Your task to perform on an android device: Open calendar and show me the first week of next month Image 0: 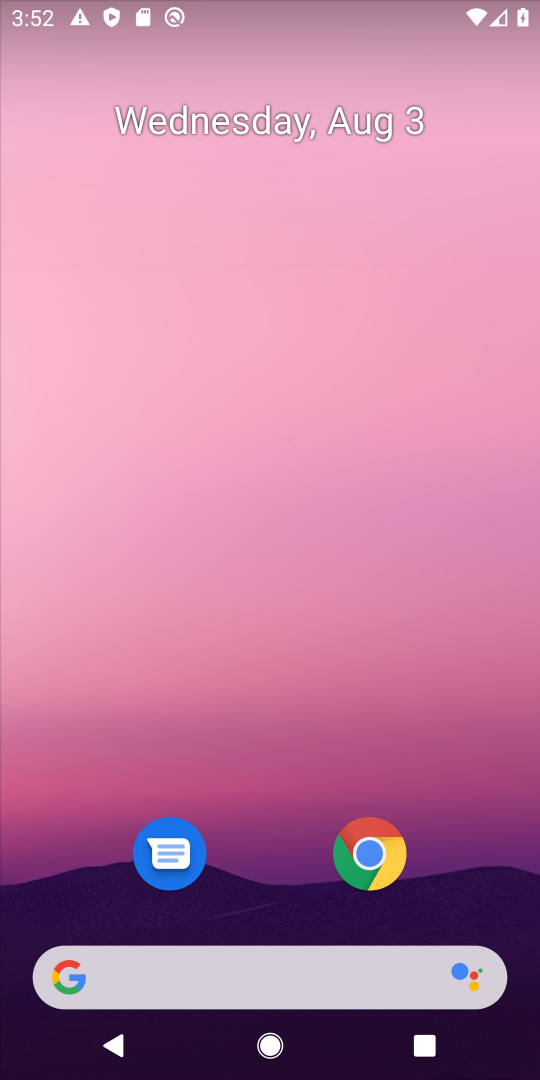
Step 0: press home button
Your task to perform on an android device: Open calendar and show me the first week of next month Image 1: 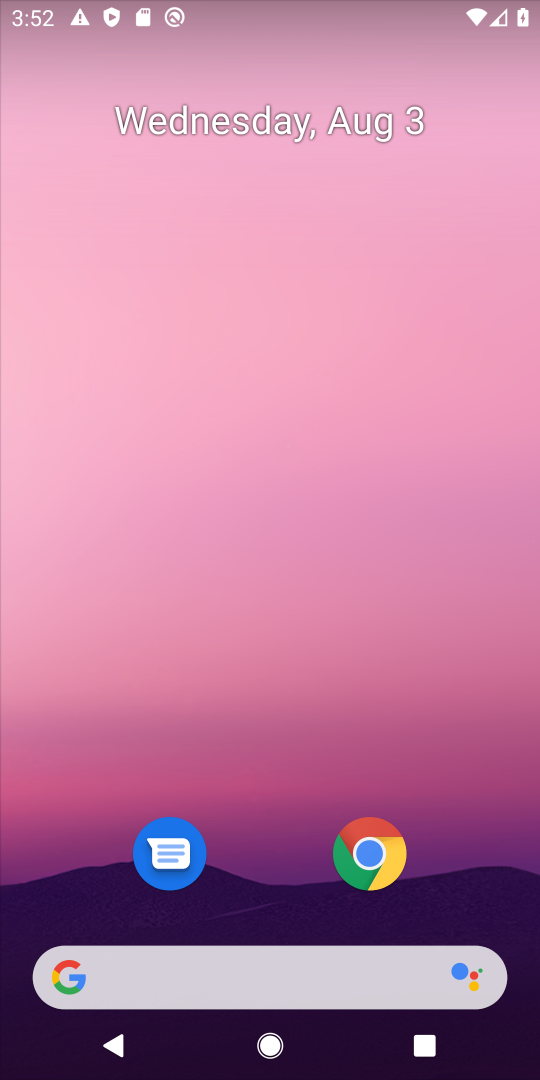
Step 1: drag from (296, 1065) to (259, 221)
Your task to perform on an android device: Open calendar and show me the first week of next month Image 2: 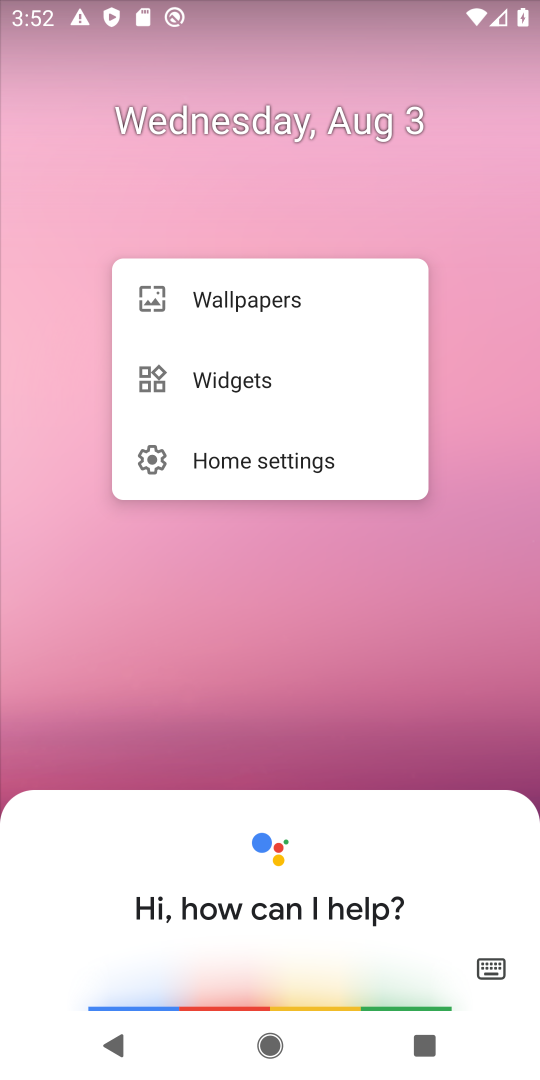
Step 2: click (285, 634)
Your task to perform on an android device: Open calendar and show me the first week of next month Image 3: 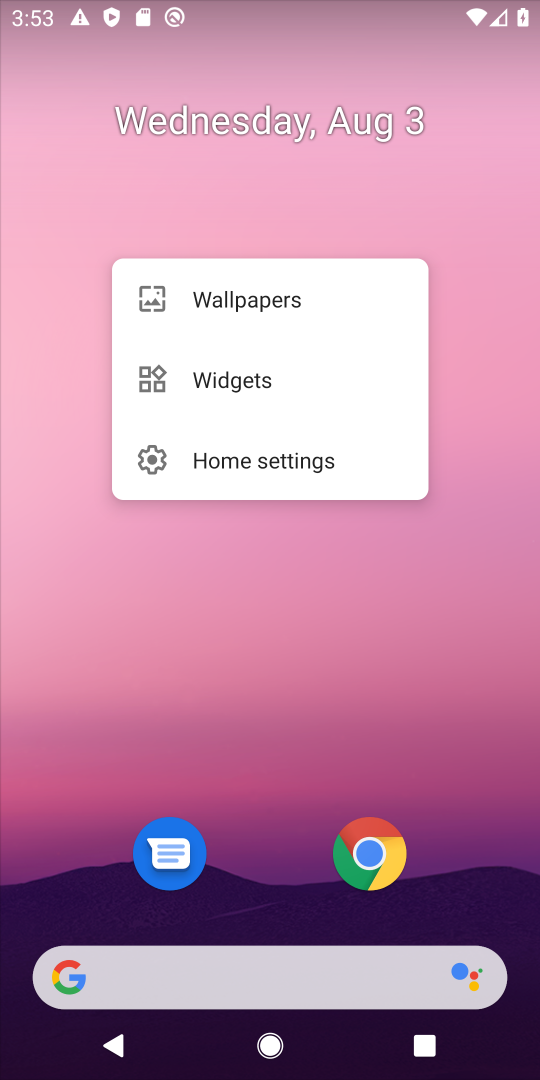
Step 3: click (318, 585)
Your task to perform on an android device: Open calendar and show me the first week of next month Image 4: 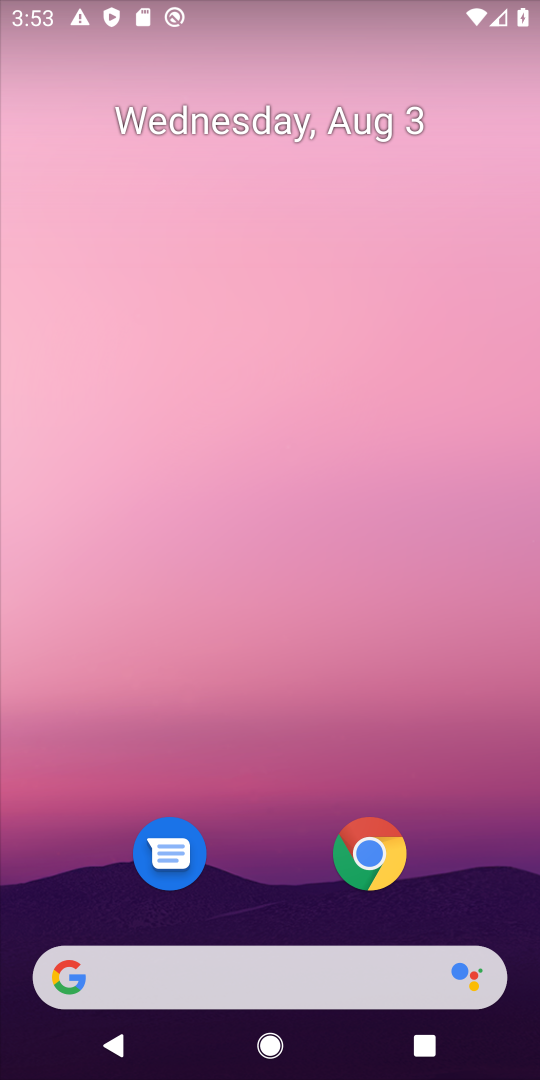
Step 4: drag from (314, 1013) to (330, 50)
Your task to perform on an android device: Open calendar and show me the first week of next month Image 5: 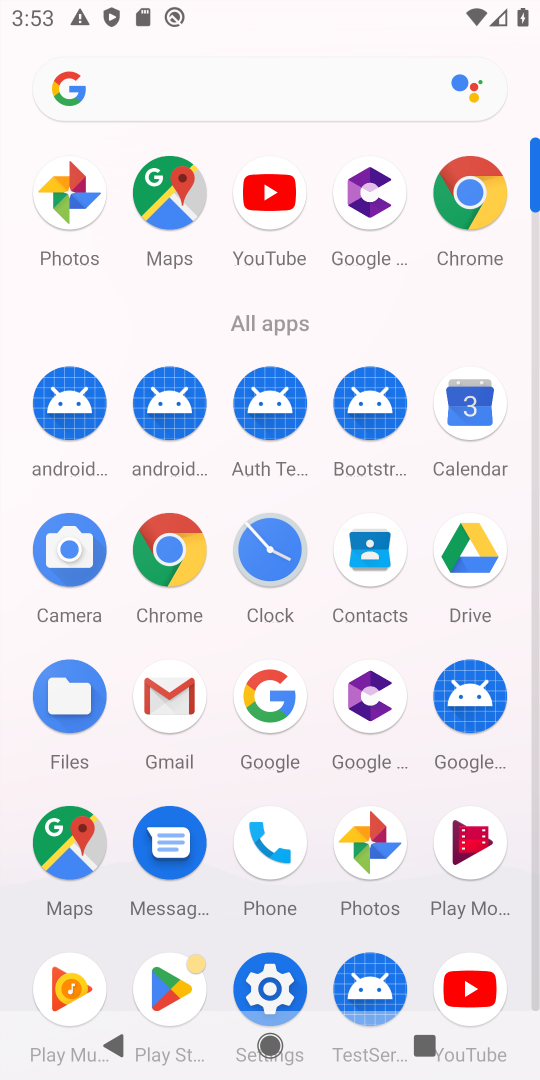
Step 5: click (468, 407)
Your task to perform on an android device: Open calendar and show me the first week of next month Image 6: 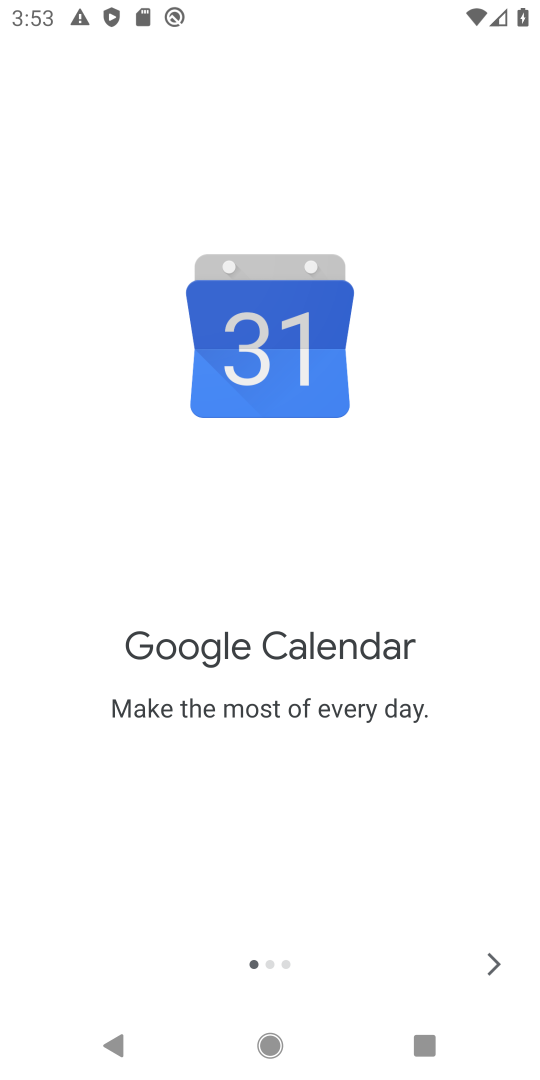
Step 6: click (493, 965)
Your task to perform on an android device: Open calendar and show me the first week of next month Image 7: 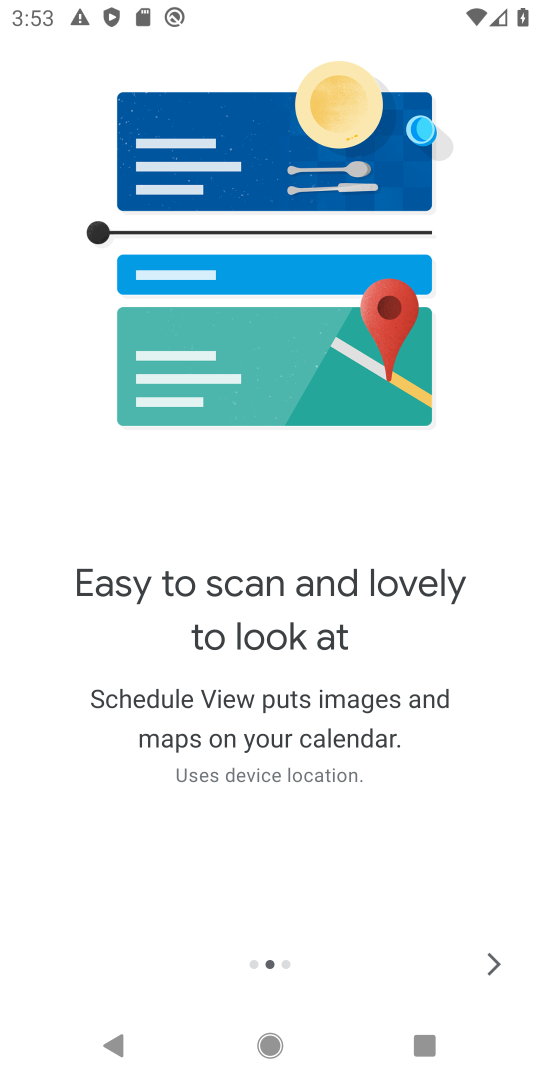
Step 7: click (495, 957)
Your task to perform on an android device: Open calendar and show me the first week of next month Image 8: 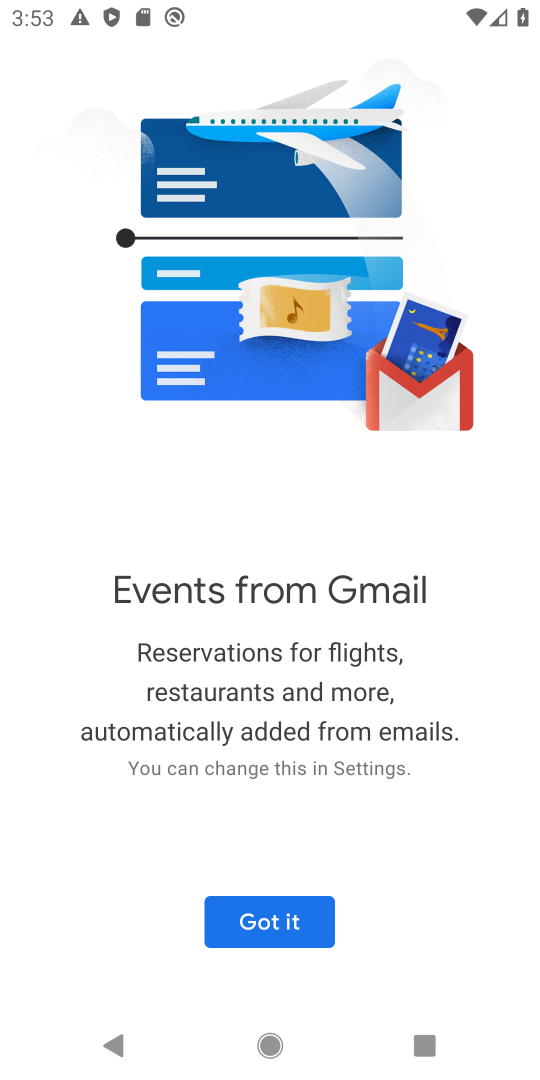
Step 8: click (282, 916)
Your task to perform on an android device: Open calendar and show me the first week of next month Image 9: 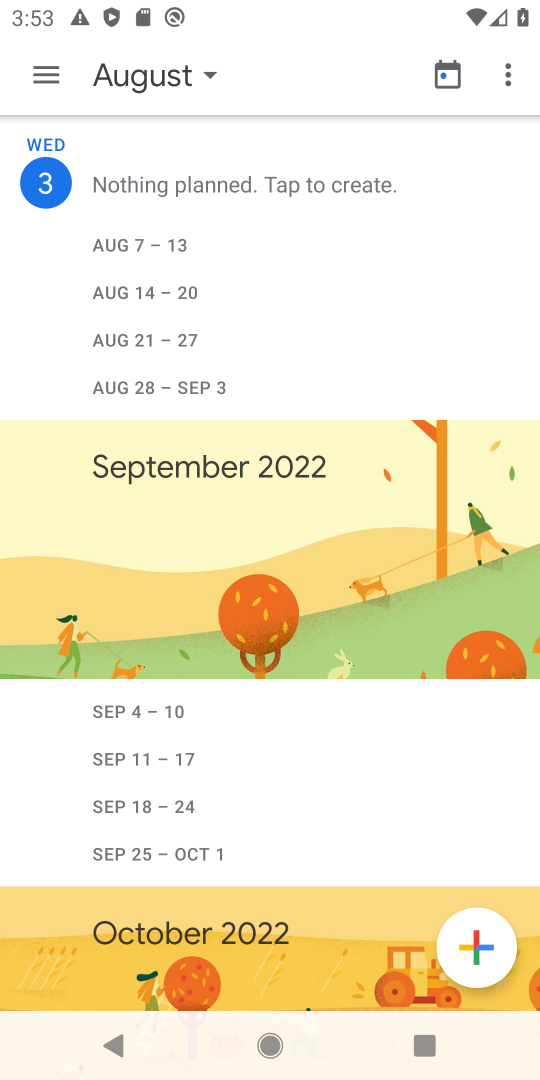
Step 9: click (181, 76)
Your task to perform on an android device: Open calendar and show me the first week of next month Image 10: 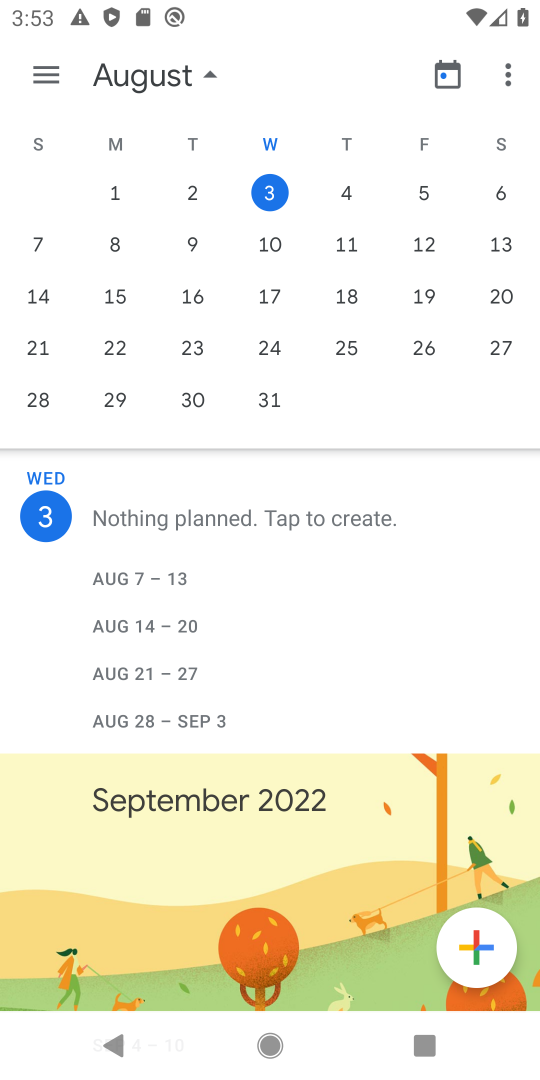
Step 10: drag from (434, 346) to (82, 337)
Your task to perform on an android device: Open calendar and show me the first week of next month Image 11: 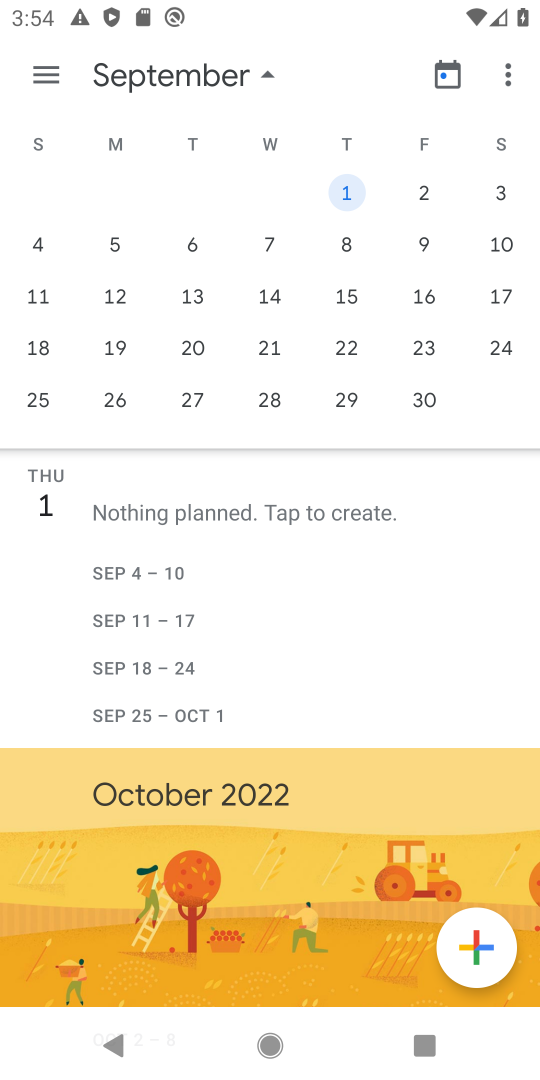
Step 11: click (43, 76)
Your task to perform on an android device: Open calendar and show me the first week of next month Image 12: 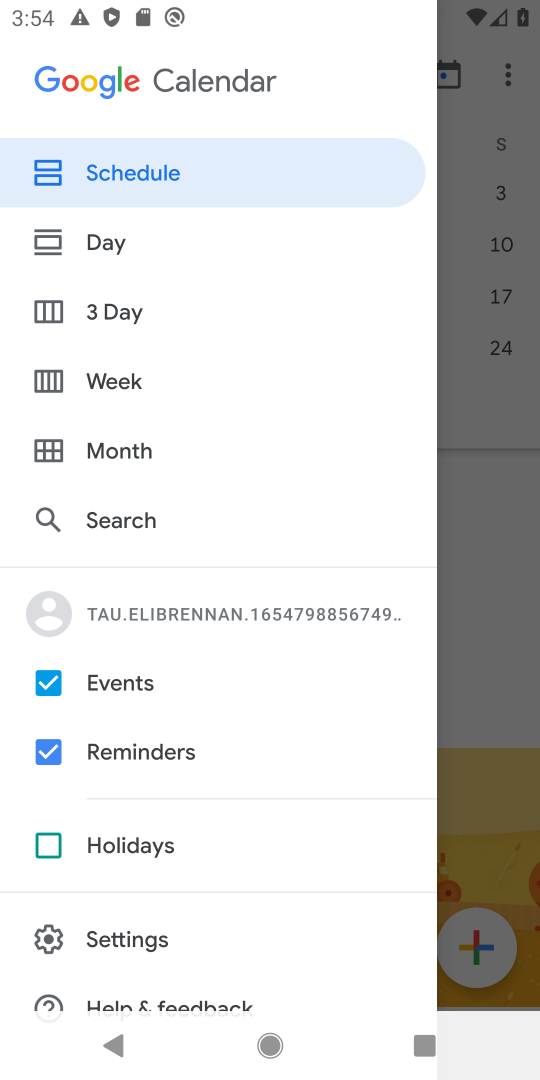
Step 12: click (114, 385)
Your task to perform on an android device: Open calendar and show me the first week of next month Image 13: 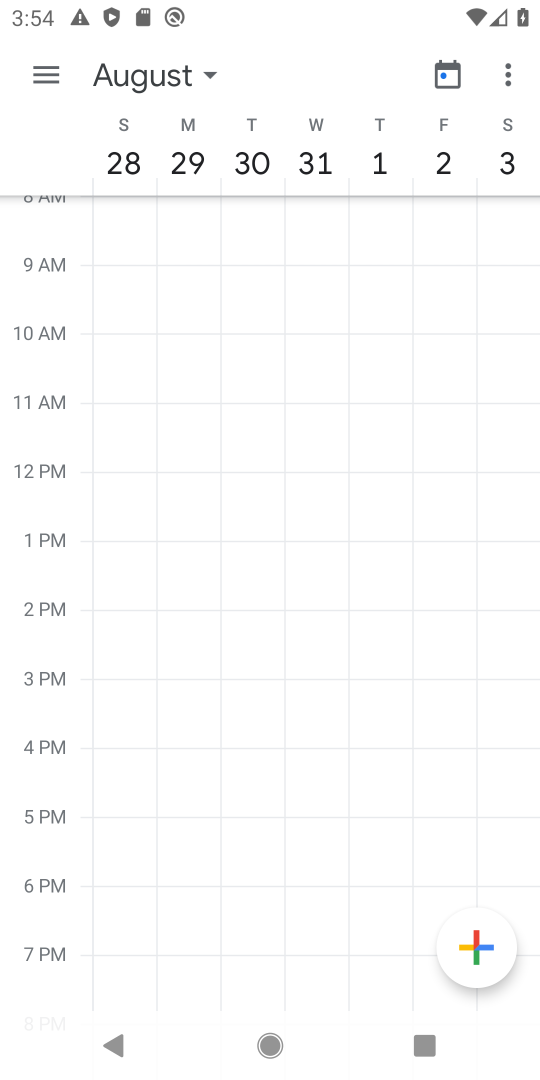
Step 13: task complete